Your task to perform on an android device: Open Youtube and go to the subscriptions tab Image 0: 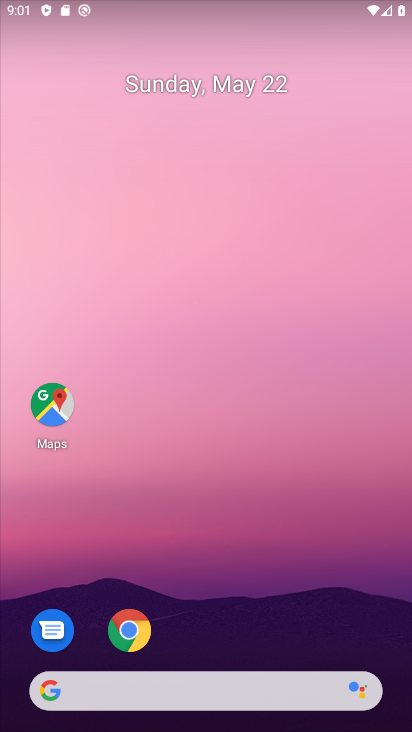
Step 0: drag from (398, 717) to (351, 279)
Your task to perform on an android device: Open Youtube and go to the subscriptions tab Image 1: 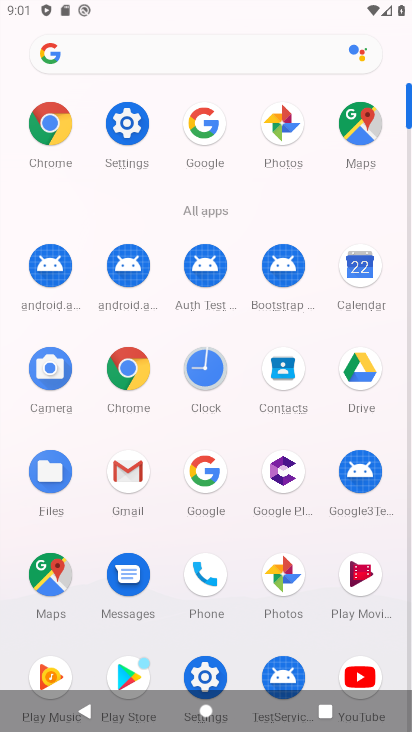
Step 1: click (359, 666)
Your task to perform on an android device: Open Youtube and go to the subscriptions tab Image 2: 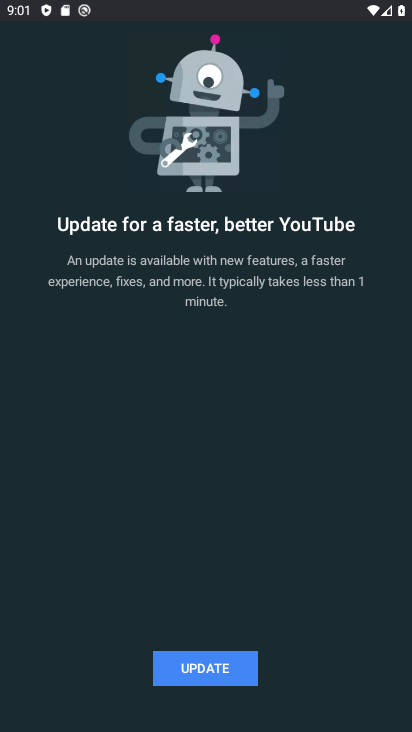
Step 2: click (209, 664)
Your task to perform on an android device: Open Youtube and go to the subscriptions tab Image 3: 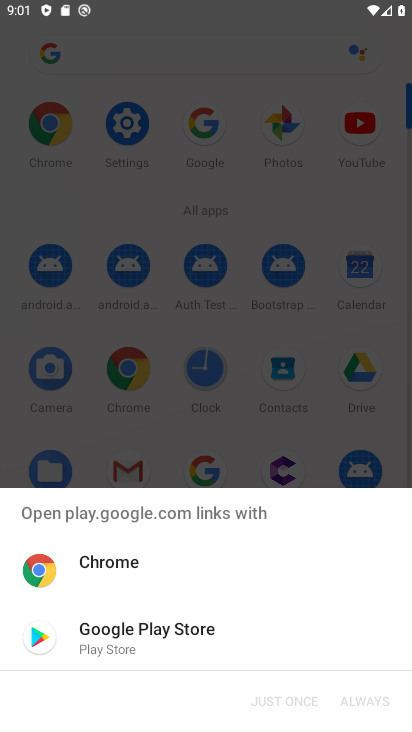
Step 3: click (126, 633)
Your task to perform on an android device: Open Youtube and go to the subscriptions tab Image 4: 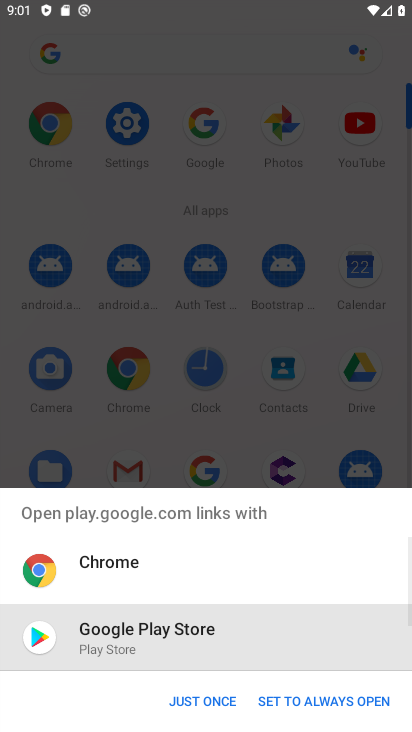
Step 4: click (315, 695)
Your task to perform on an android device: Open Youtube and go to the subscriptions tab Image 5: 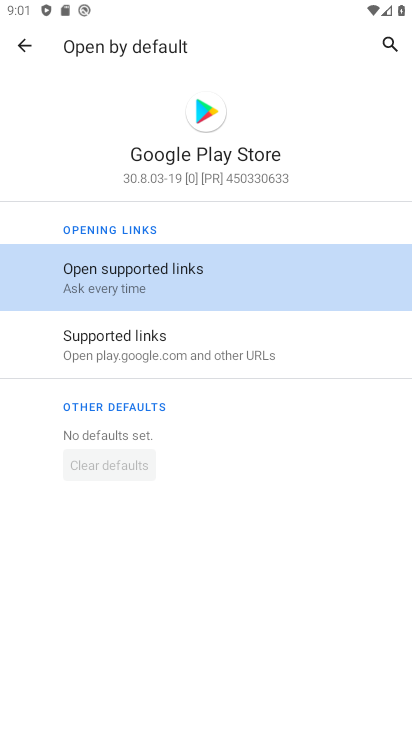
Step 5: click (21, 39)
Your task to perform on an android device: Open Youtube and go to the subscriptions tab Image 6: 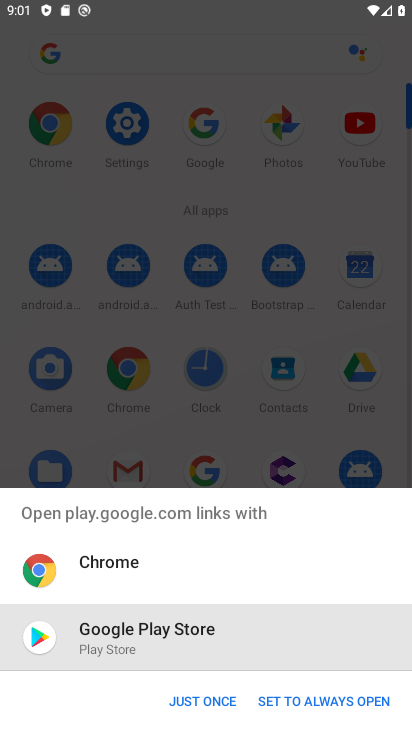
Step 6: click (186, 702)
Your task to perform on an android device: Open Youtube and go to the subscriptions tab Image 7: 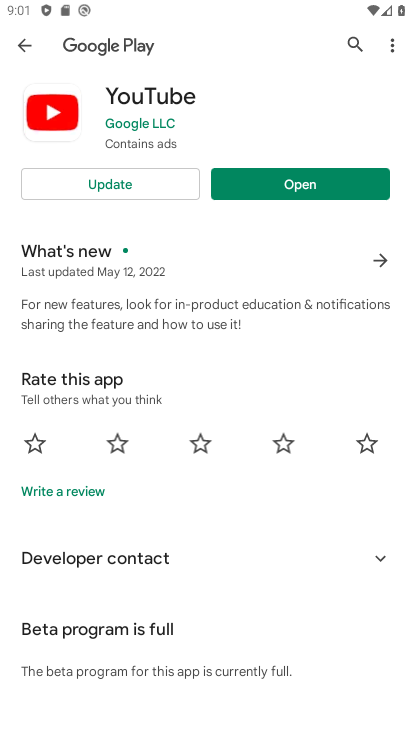
Step 7: click (310, 180)
Your task to perform on an android device: Open Youtube and go to the subscriptions tab Image 8: 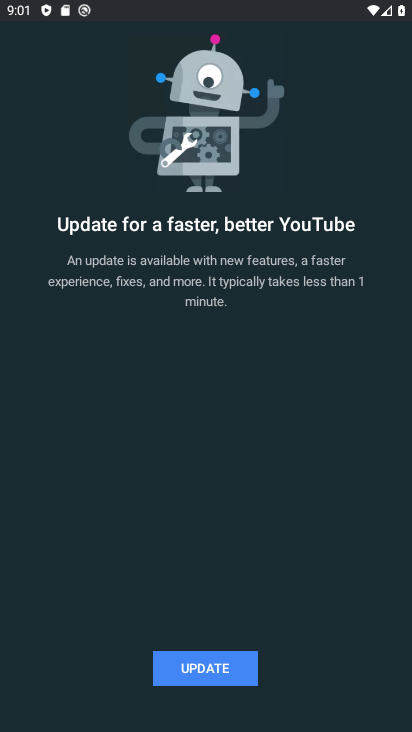
Step 8: click (226, 651)
Your task to perform on an android device: Open Youtube and go to the subscriptions tab Image 9: 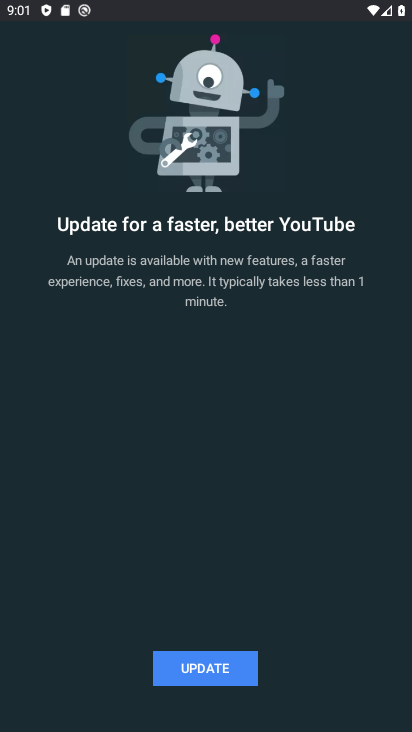
Step 9: click (212, 663)
Your task to perform on an android device: Open Youtube and go to the subscriptions tab Image 10: 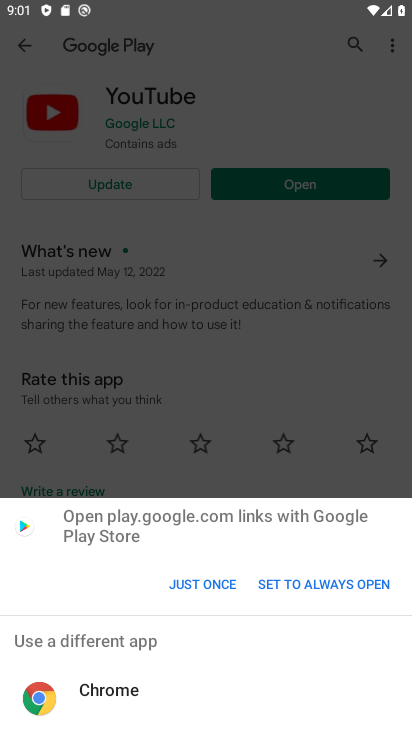
Step 10: click (167, 580)
Your task to perform on an android device: Open Youtube and go to the subscriptions tab Image 11: 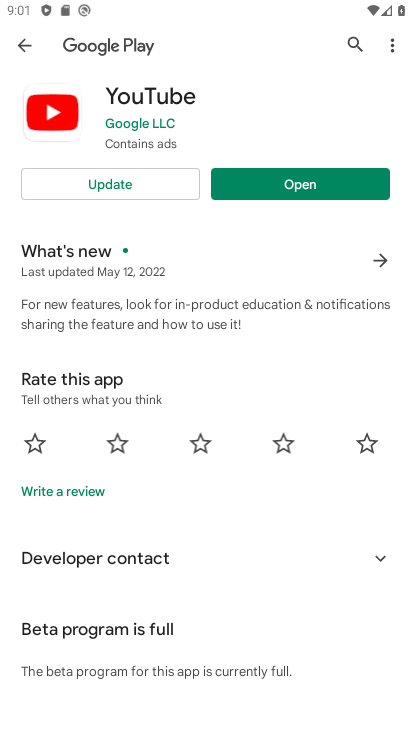
Step 11: click (123, 183)
Your task to perform on an android device: Open Youtube and go to the subscriptions tab Image 12: 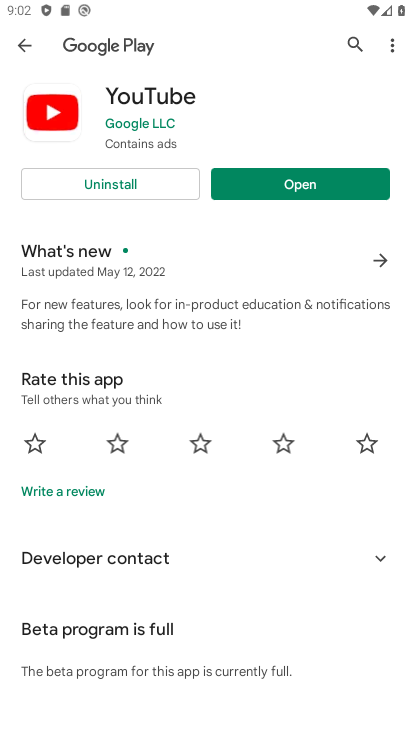
Step 12: click (276, 193)
Your task to perform on an android device: Open Youtube and go to the subscriptions tab Image 13: 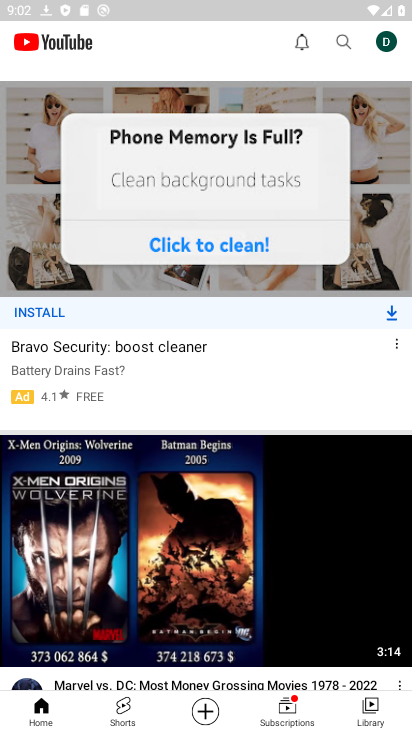
Step 13: click (292, 717)
Your task to perform on an android device: Open Youtube and go to the subscriptions tab Image 14: 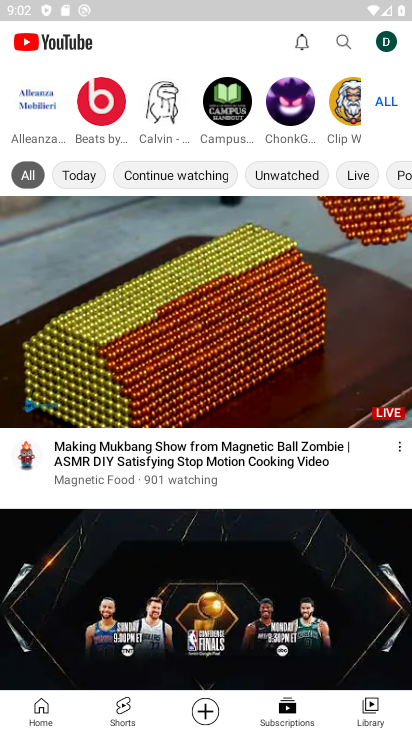
Step 14: task complete